Your task to perform on an android device: set the timer Image 0: 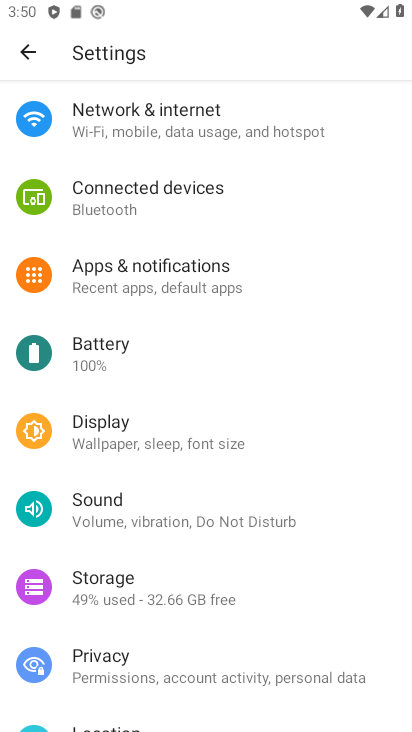
Step 0: press enter
Your task to perform on an android device: set the timer Image 1: 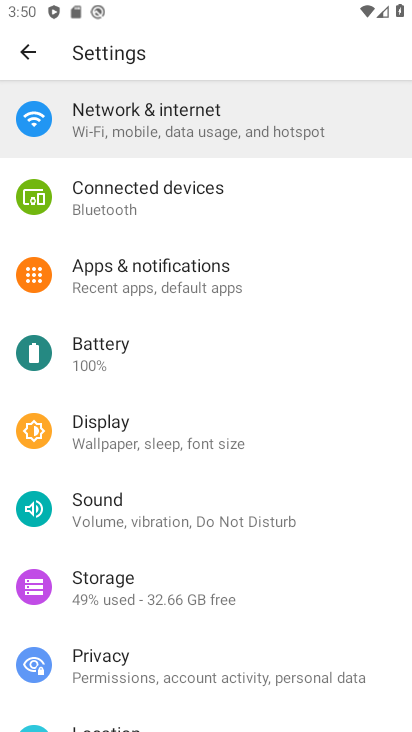
Step 1: press home button
Your task to perform on an android device: set the timer Image 2: 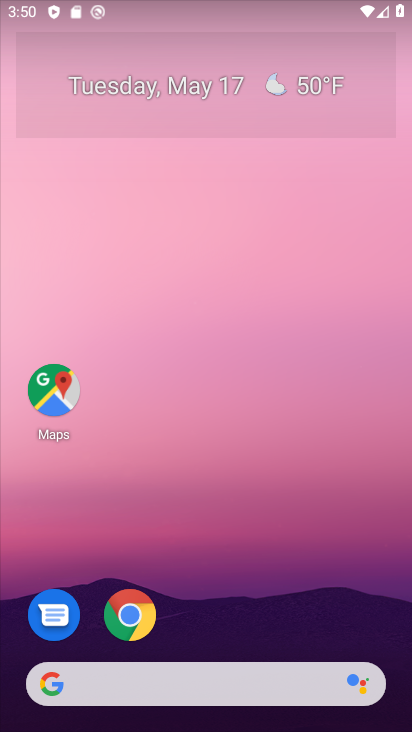
Step 2: drag from (259, 653) to (233, 184)
Your task to perform on an android device: set the timer Image 3: 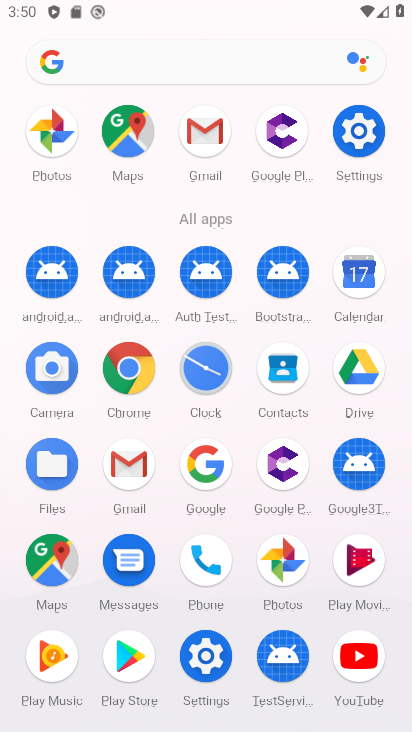
Step 3: click (197, 362)
Your task to perform on an android device: set the timer Image 4: 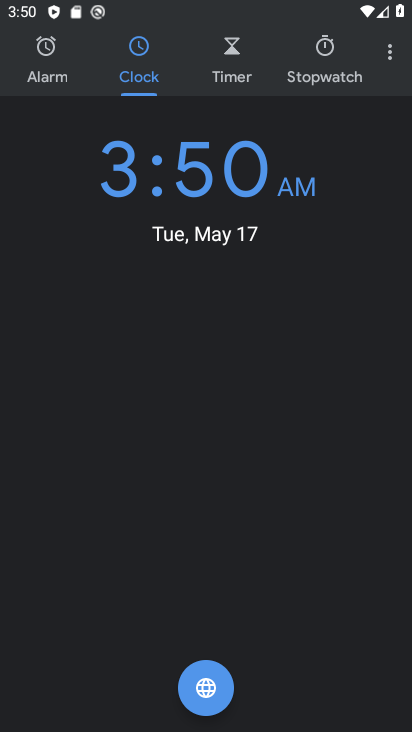
Step 4: click (229, 54)
Your task to perform on an android device: set the timer Image 5: 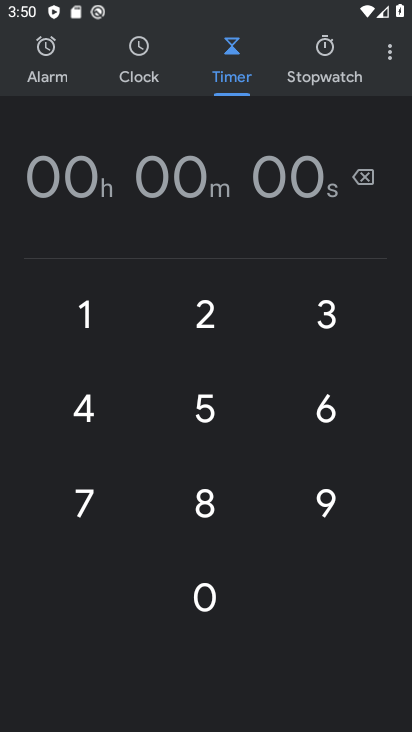
Step 5: click (202, 498)
Your task to perform on an android device: set the timer Image 6: 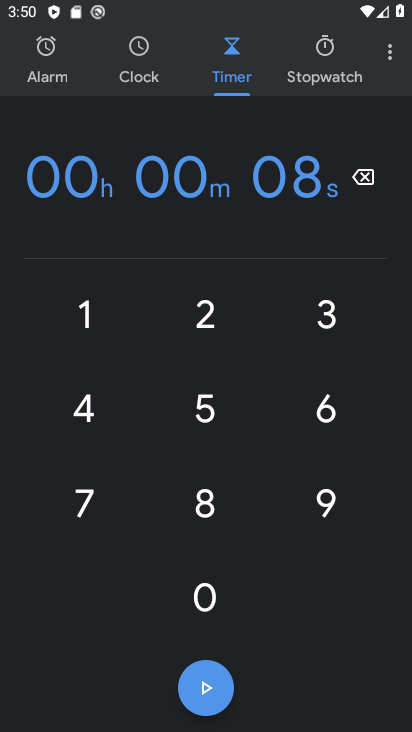
Step 6: click (200, 682)
Your task to perform on an android device: set the timer Image 7: 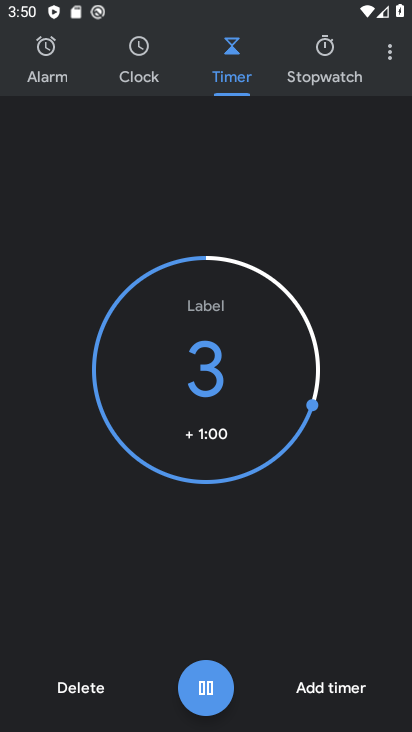
Step 7: click (200, 683)
Your task to perform on an android device: set the timer Image 8: 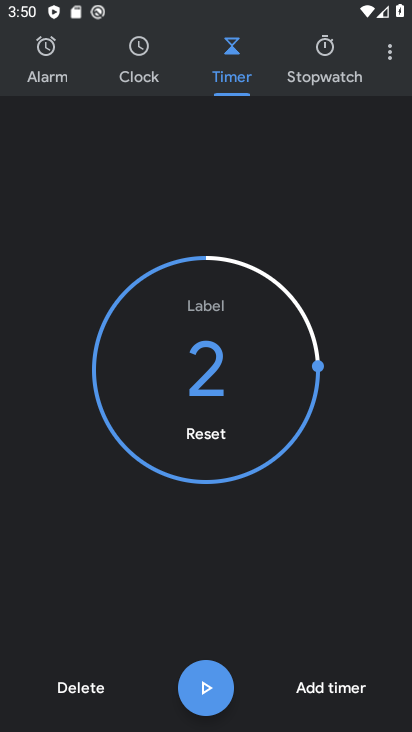
Step 8: click (342, 682)
Your task to perform on an android device: set the timer Image 9: 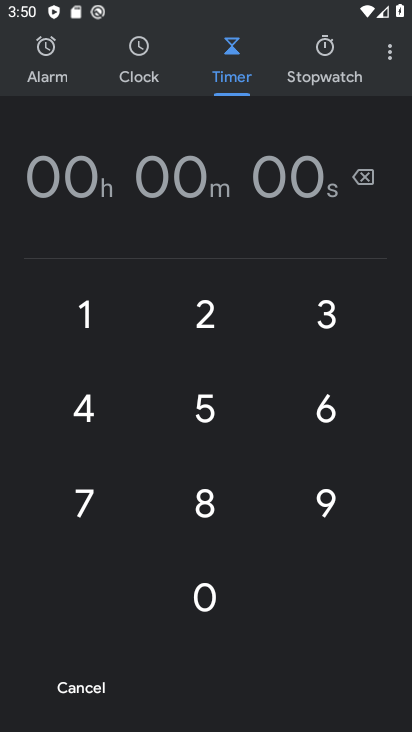
Step 9: task complete